Your task to perform on an android device: manage bookmarks in the chrome app Image 0: 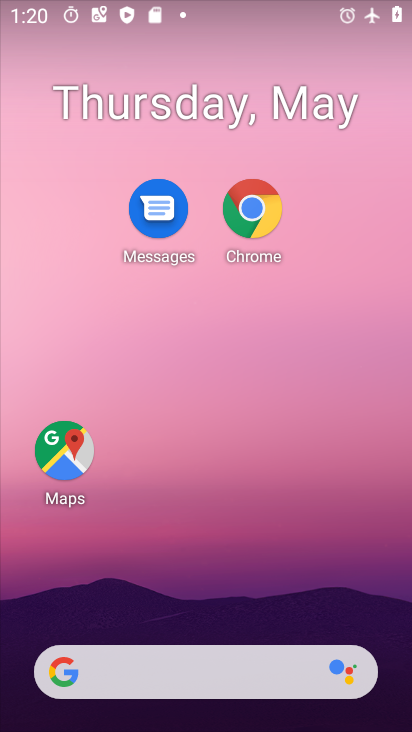
Step 0: click (248, 250)
Your task to perform on an android device: manage bookmarks in the chrome app Image 1: 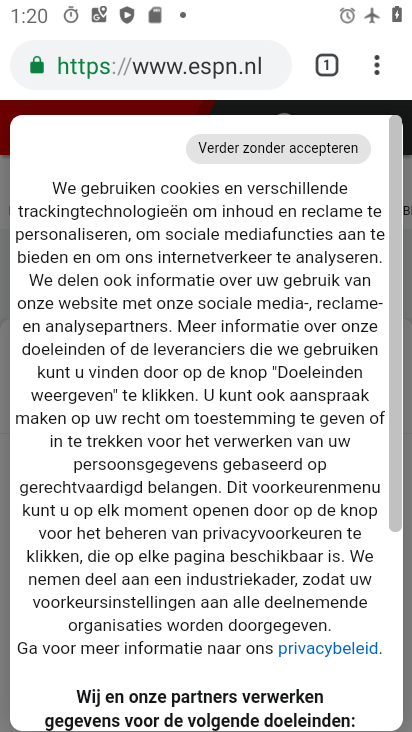
Step 1: click (375, 70)
Your task to perform on an android device: manage bookmarks in the chrome app Image 2: 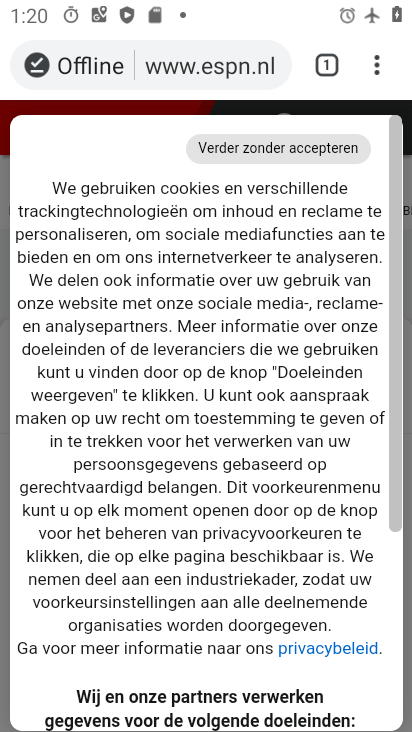
Step 2: click (372, 66)
Your task to perform on an android device: manage bookmarks in the chrome app Image 3: 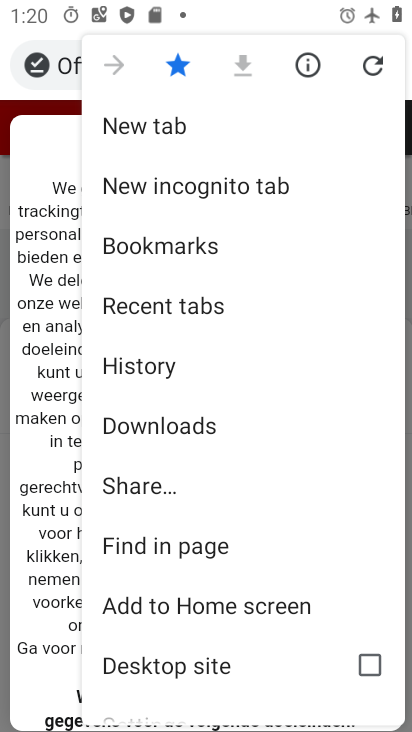
Step 3: click (178, 258)
Your task to perform on an android device: manage bookmarks in the chrome app Image 4: 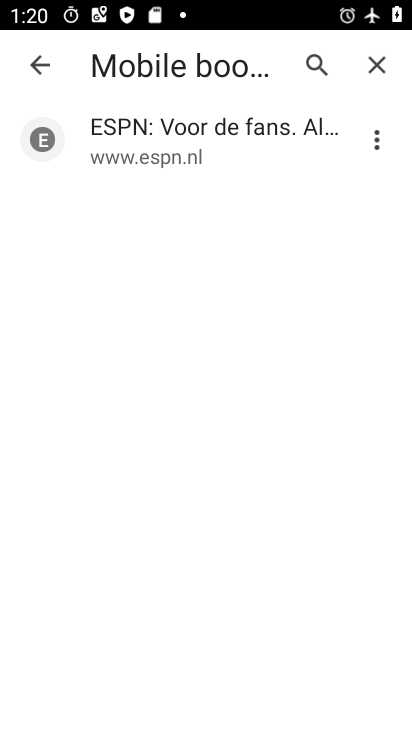
Step 4: click (375, 139)
Your task to perform on an android device: manage bookmarks in the chrome app Image 5: 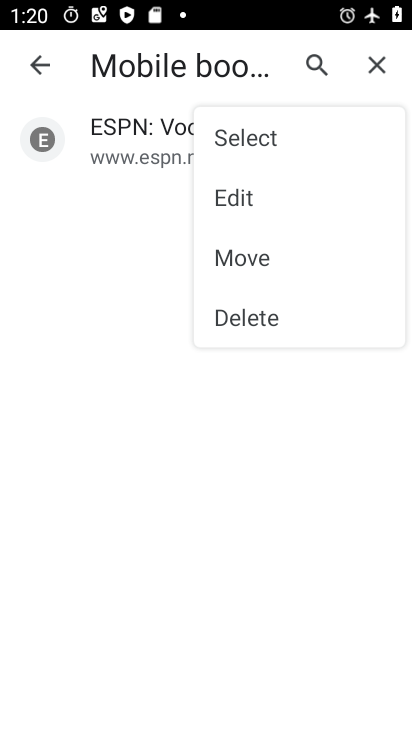
Step 5: click (269, 186)
Your task to perform on an android device: manage bookmarks in the chrome app Image 6: 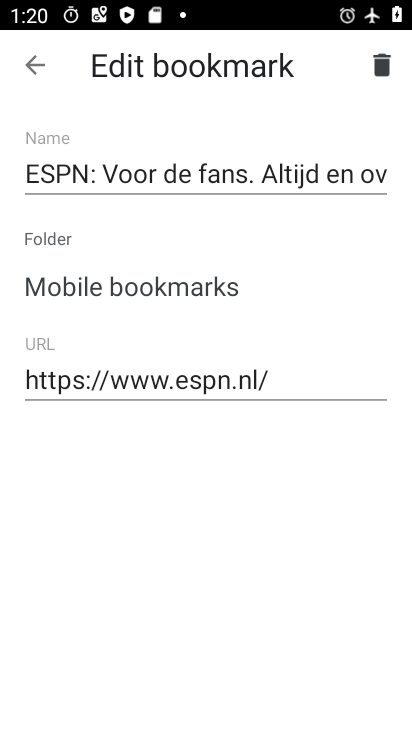
Step 6: click (38, 68)
Your task to perform on an android device: manage bookmarks in the chrome app Image 7: 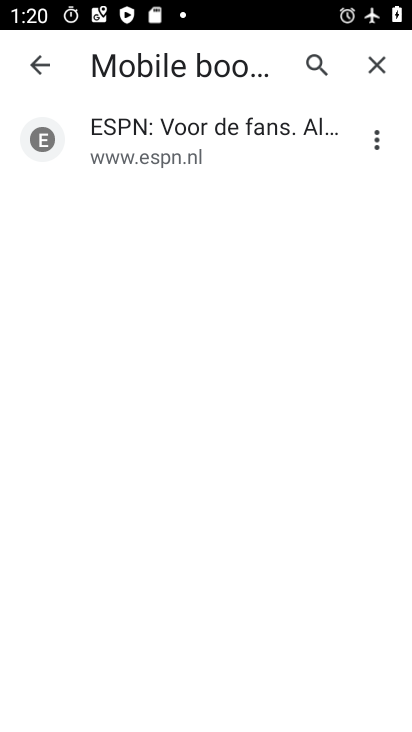
Step 7: click (367, 147)
Your task to perform on an android device: manage bookmarks in the chrome app Image 8: 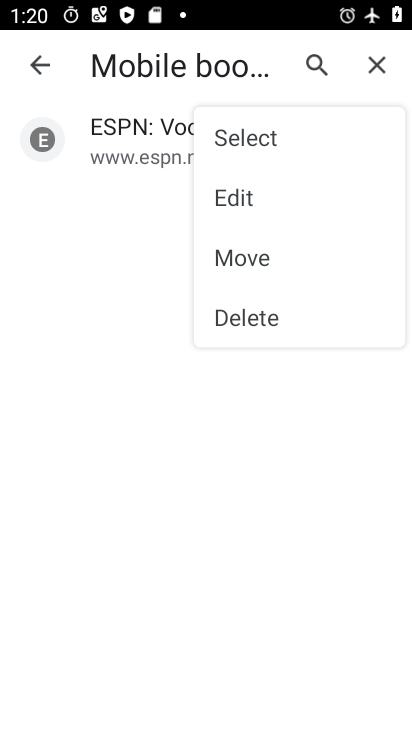
Step 8: click (235, 263)
Your task to perform on an android device: manage bookmarks in the chrome app Image 9: 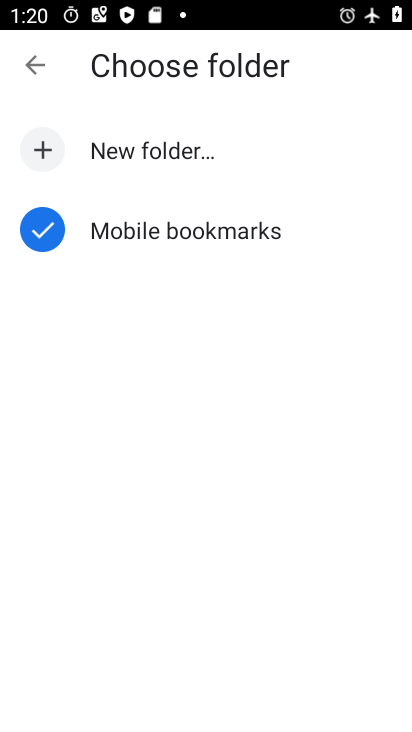
Step 9: click (51, 234)
Your task to perform on an android device: manage bookmarks in the chrome app Image 10: 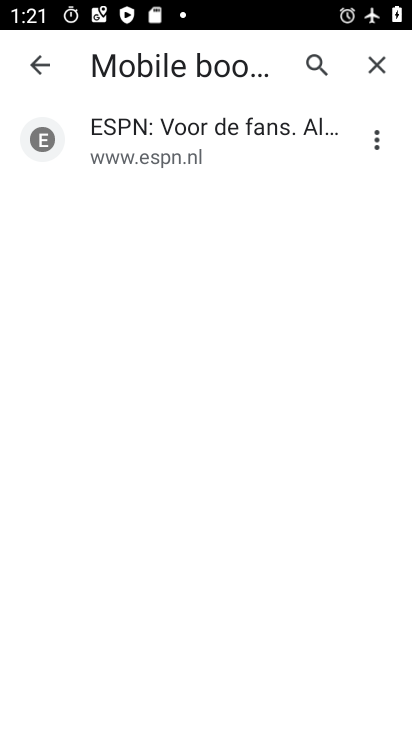
Step 10: click (379, 140)
Your task to perform on an android device: manage bookmarks in the chrome app Image 11: 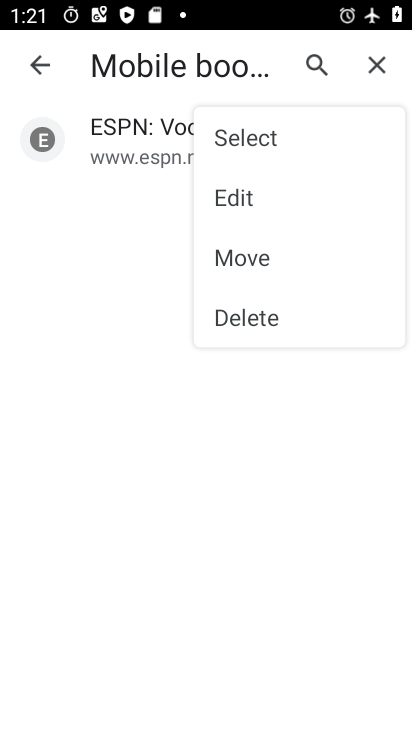
Step 11: click (230, 252)
Your task to perform on an android device: manage bookmarks in the chrome app Image 12: 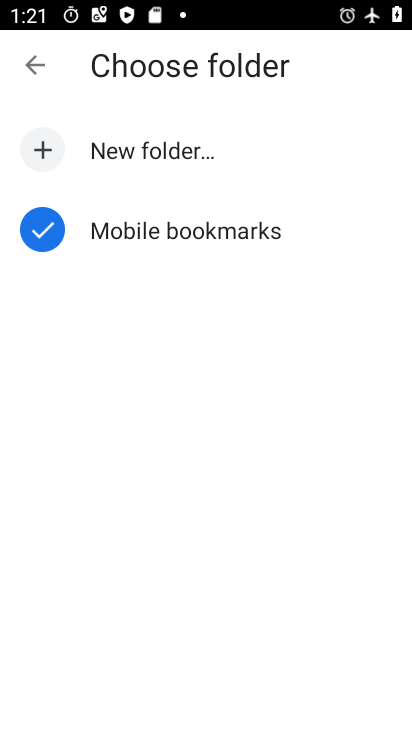
Step 12: click (40, 132)
Your task to perform on an android device: manage bookmarks in the chrome app Image 13: 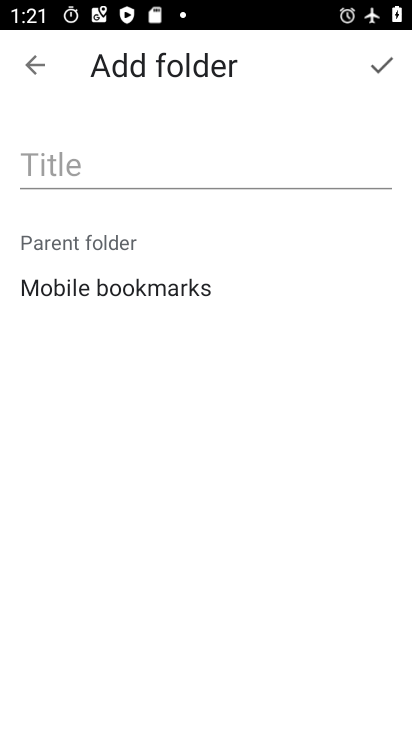
Step 13: click (161, 179)
Your task to perform on an android device: manage bookmarks in the chrome app Image 14: 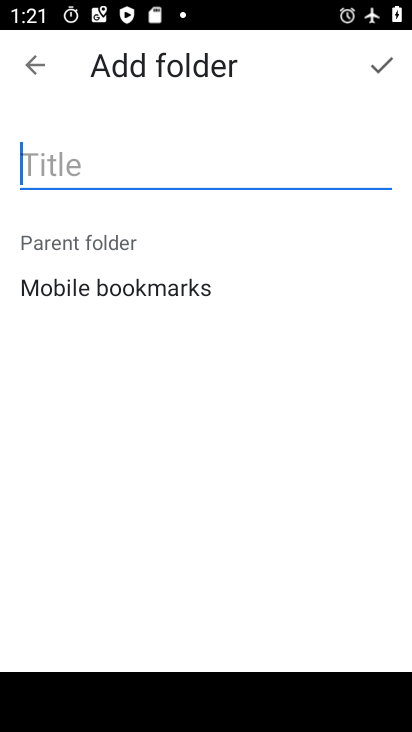
Step 14: type "Warangal"
Your task to perform on an android device: manage bookmarks in the chrome app Image 15: 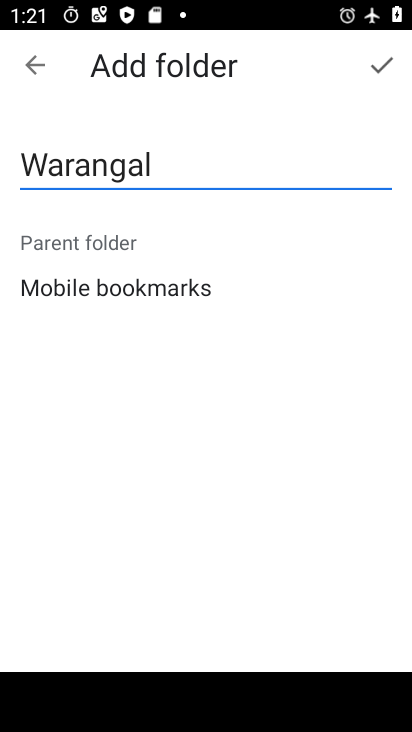
Step 15: click (380, 74)
Your task to perform on an android device: manage bookmarks in the chrome app Image 16: 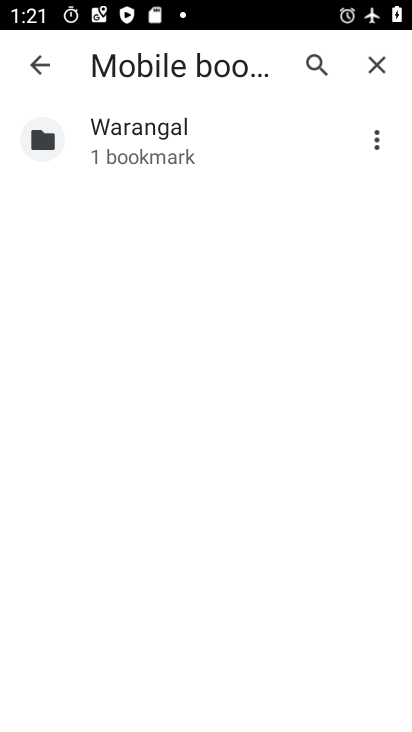
Step 16: task complete